Your task to perform on an android device: Open Google Image 0: 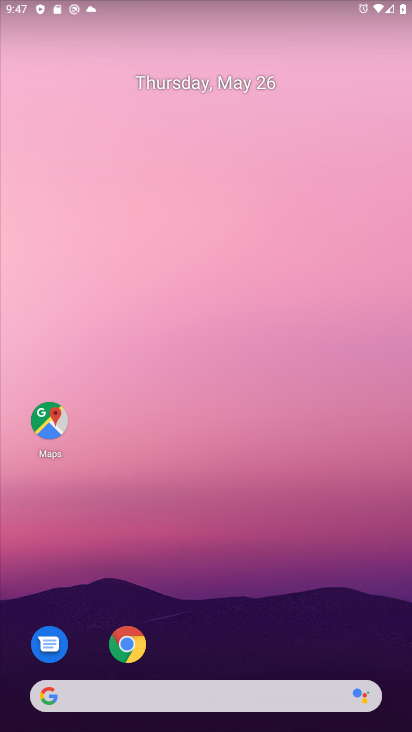
Step 0: drag from (227, 655) to (241, 344)
Your task to perform on an android device: Open Google Image 1: 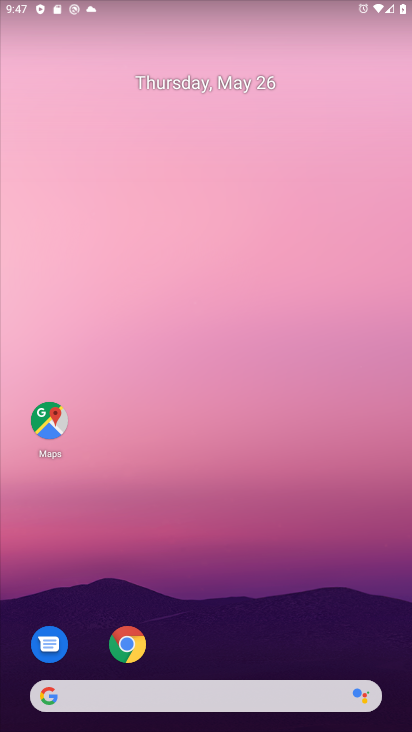
Step 1: drag from (238, 635) to (234, 107)
Your task to perform on an android device: Open Google Image 2: 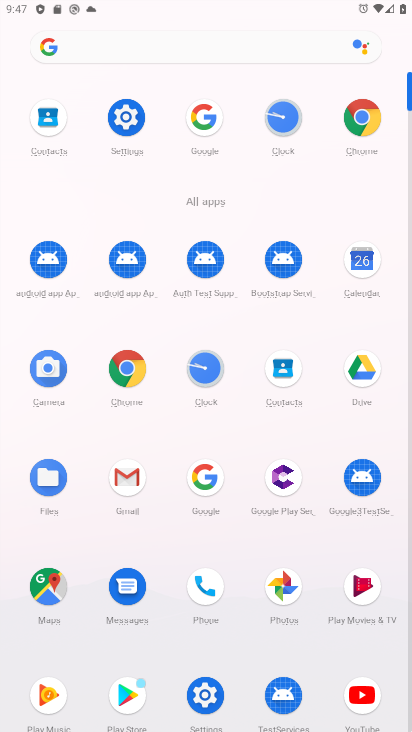
Step 2: click (191, 127)
Your task to perform on an android device: Open Google Image 3: 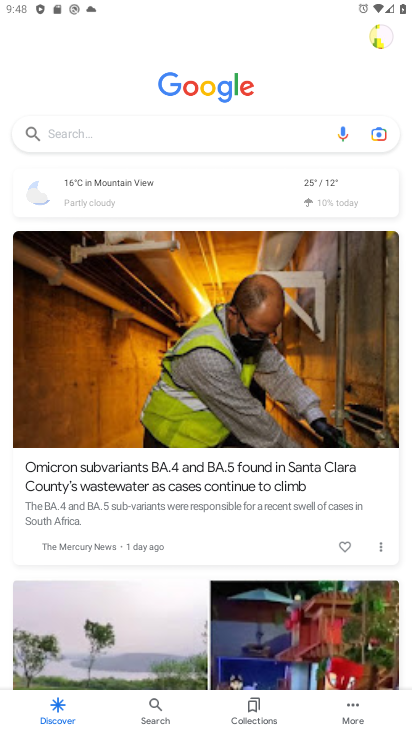
Step 3: task complete